Your task to perform on an android device: Is it going to rain tomorrow? Image 0: 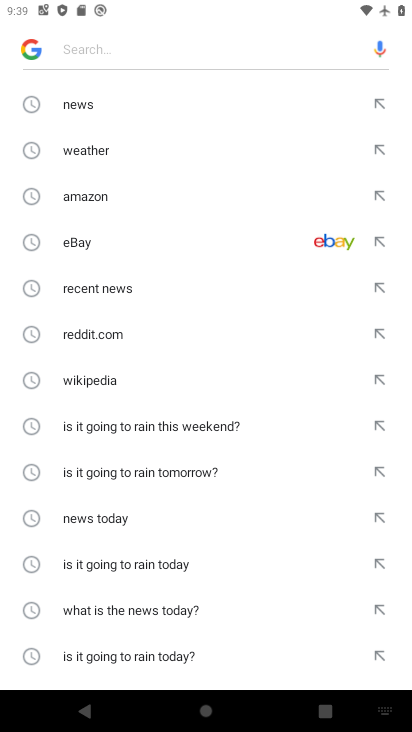
Step 0: press back button
Your task to perform on an android device: Is it going to rain tomorrow? Image 1: 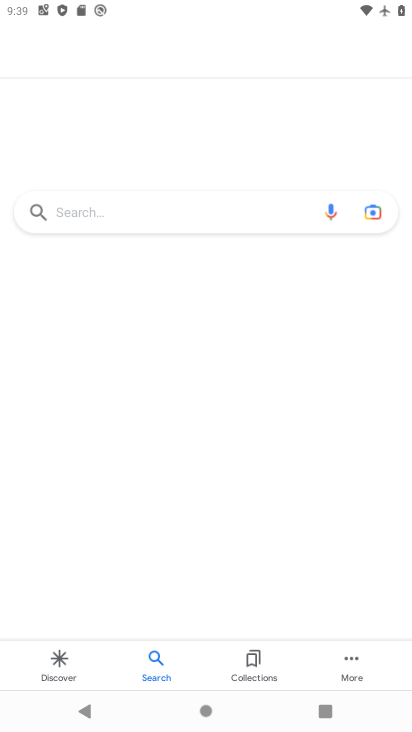
Step 1: click (181, 227)
Your task to perform on an android device: Is it going to rain tomorrow? Image 2: 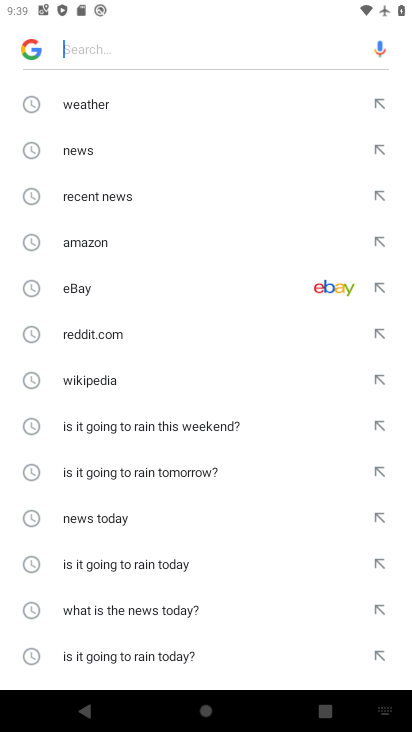
Step 2: click (91, 104)
Your task to perform on an android device: Is it going to rain tomorrow? Image 3: 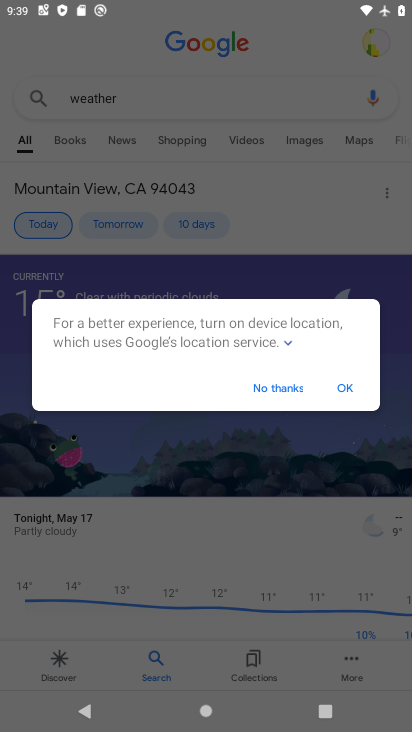
Step 3: click (333, 385)
Your task to perform on an android device: Is it going to rain tomorrow? Image 4: 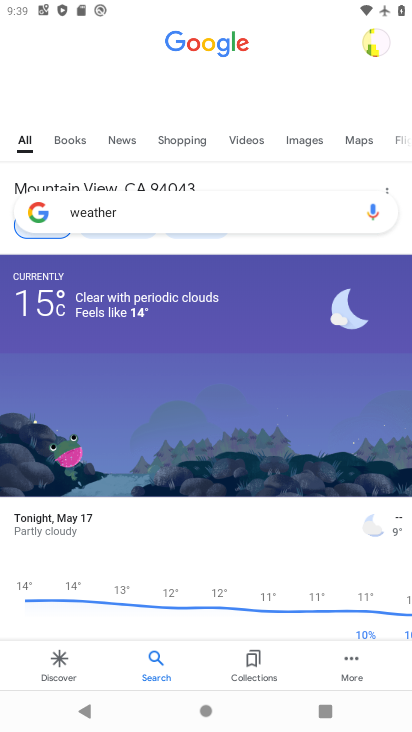
Step 4: click (88, 240)
Your task to perform on an android device: Is it going to rain tomorrow? Image 5: 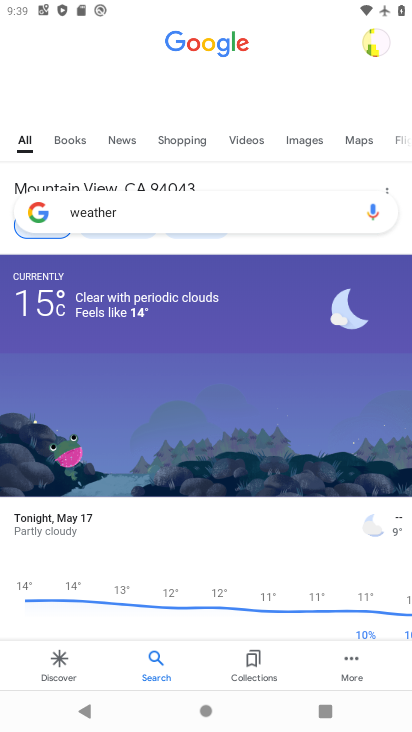
Step 5: drag from (107, 266) to (128, 457)
Your task to perform on an android device: Is it going to rain tomorrow? Image 6: 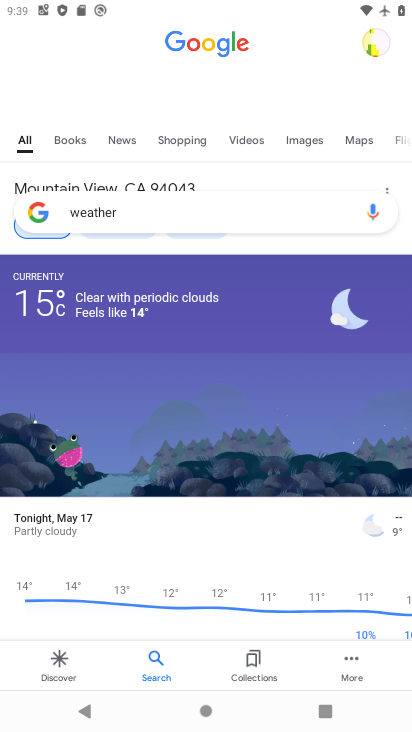
Step 6: click (132, 248)
Your task to perform on an android device: Is it going to rain tomorrow? Image 7: 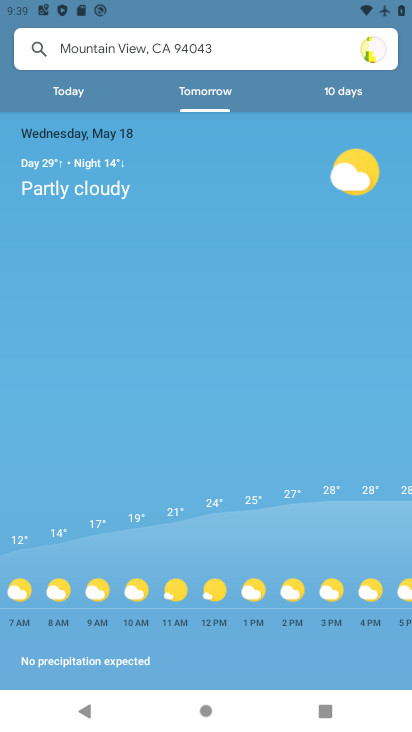
Step 7: task complete